Your task to perform on an android device: Open the stopwatch Image 0: 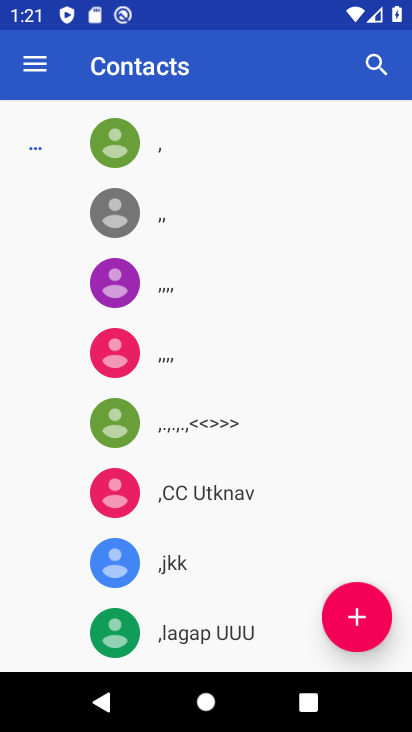
Step 0: press home button
Your task to perform on an android device: Open the stopwatch Image 1: 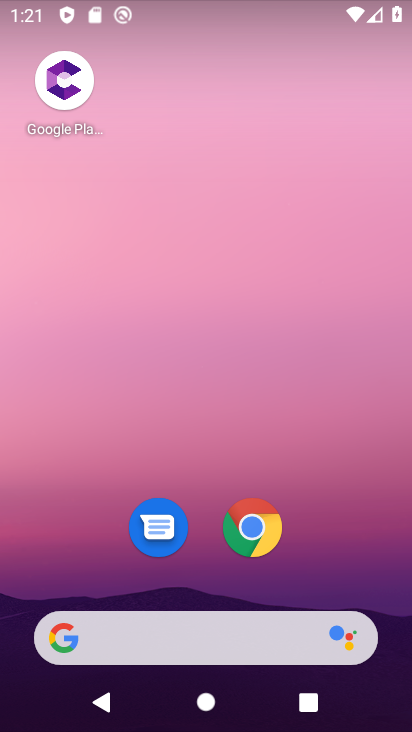
Step 1: drag from (202, 596) to (240, 168)
Your task to perform on an android device: Open the stopwatch Image 2: 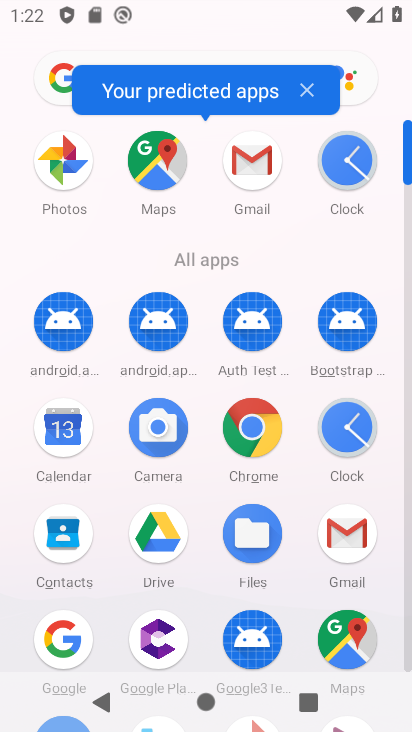
Step 2: click (356, 425)
Your task to perform on an android device: Open the stopwatch Image 3: 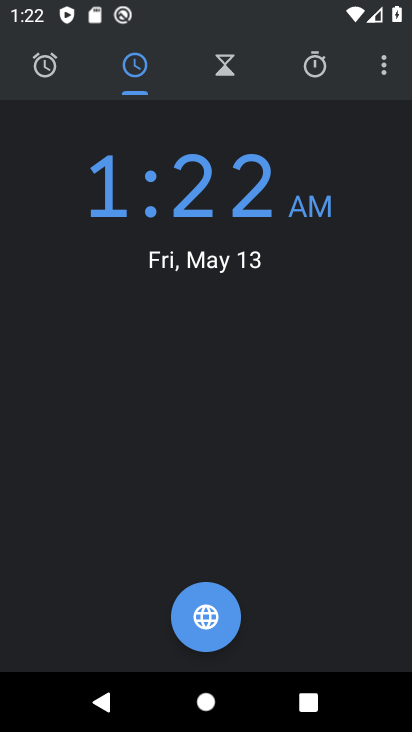
Step 3: click (318, 83)
Your task to perform on an android device: Open the stopwatch Image 4: 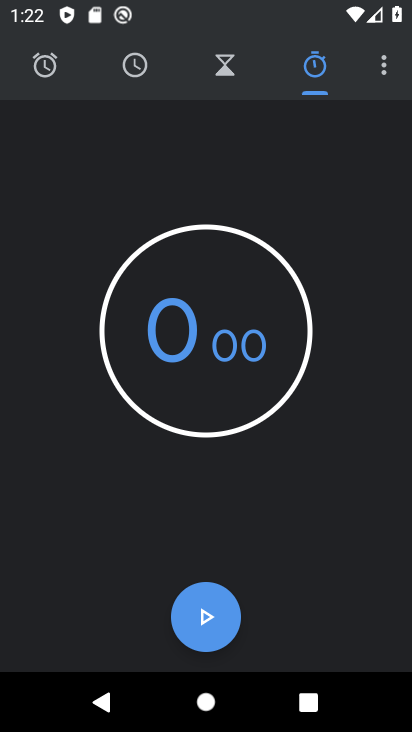
Step 4: task complete